Your task to perform on an android device: toggle priority inbox in the gmail app Image 0: 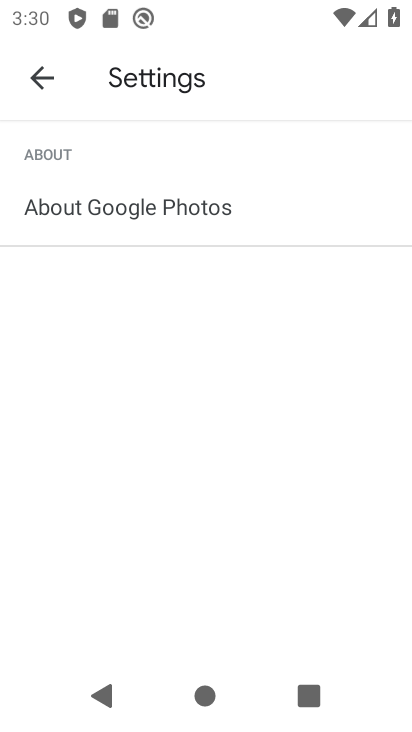
Step 0: press home button
Your task to perform on an android device: toggle priority inbox in the gmail app Image 1: 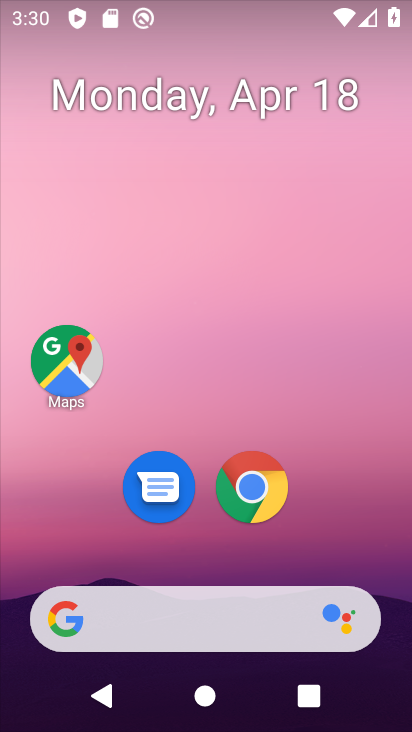
Step 1: drag from (217, 583) to (218, 64)
Your task to perform on an android device: toggle priority inbox in the gmail app Image 2: 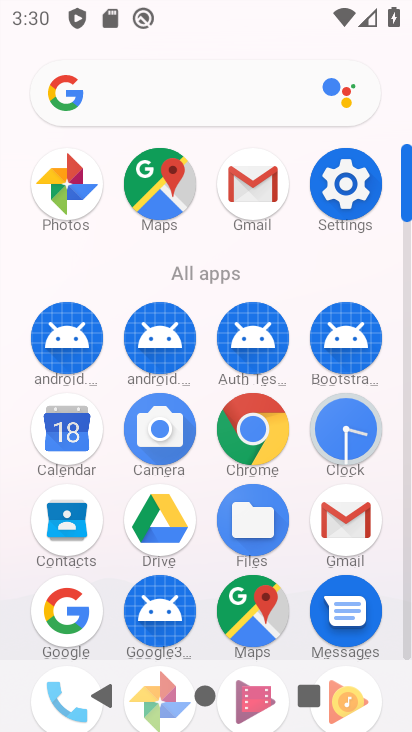
Step 2: click (328, 534)
Your task to perform on an android device: toggle priority inbox in the gmail app Image 3: 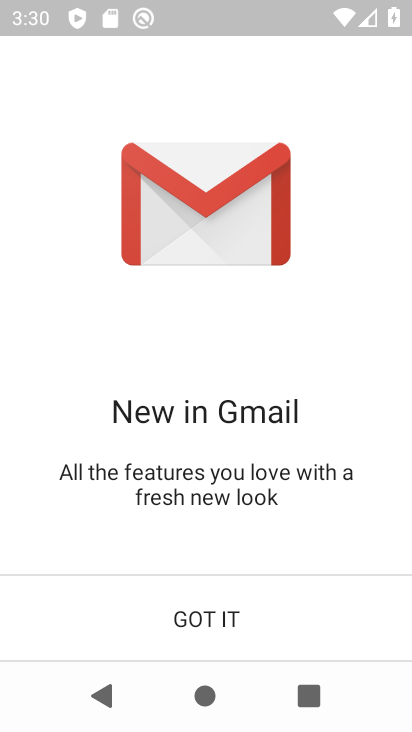
Step 3: click (169, 610)
Your task to perform on an android device: toggle priority inbox in the gmail app Image 4: 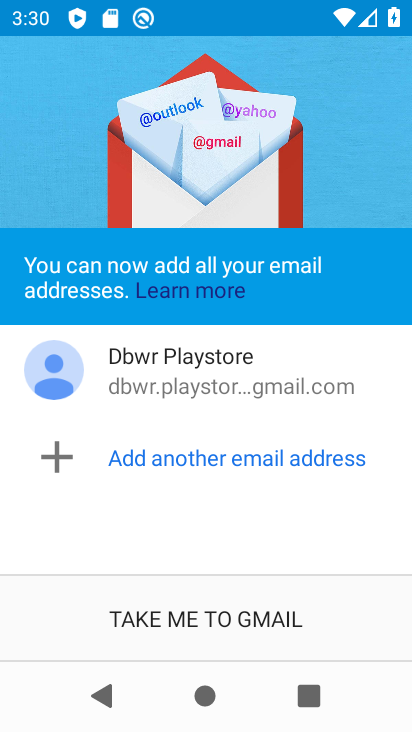
Step 4: click (159, 613)
Your task to perform on an android device: toggle priority inbox in the gmail app Image 5: 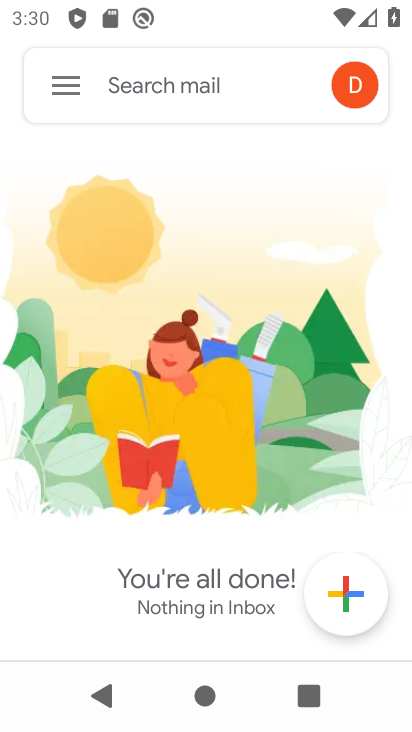
Step 5: click (61, 92)
Your task to perform on an android device: toggle priority inbox in the gmail app Image 6: 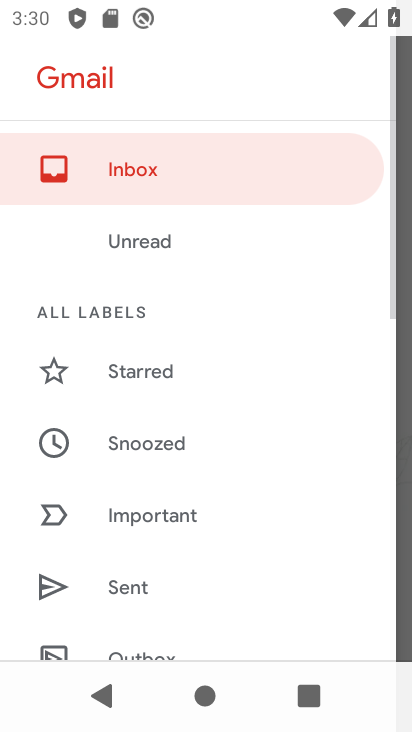
Step 6: drag from (141, 509) to (128, 144)
Your task to perform on an android device: toggle priority inbox in the gmail app Image 7: 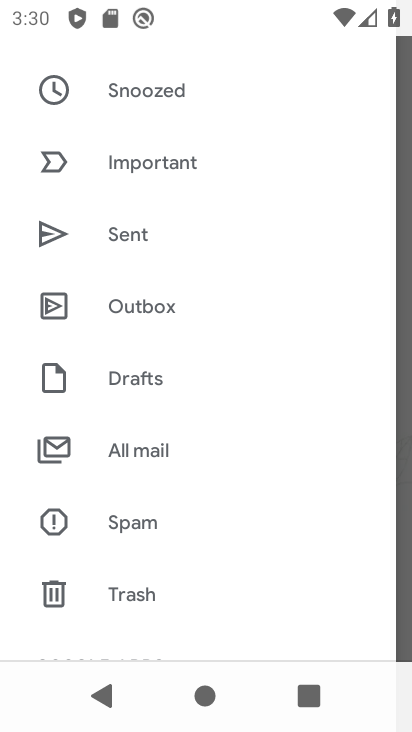
Step 7: drag from (152, 612) to (153, 246)
Your task to perform on an android device: toggle priority inbox in the gmail app Image 8: 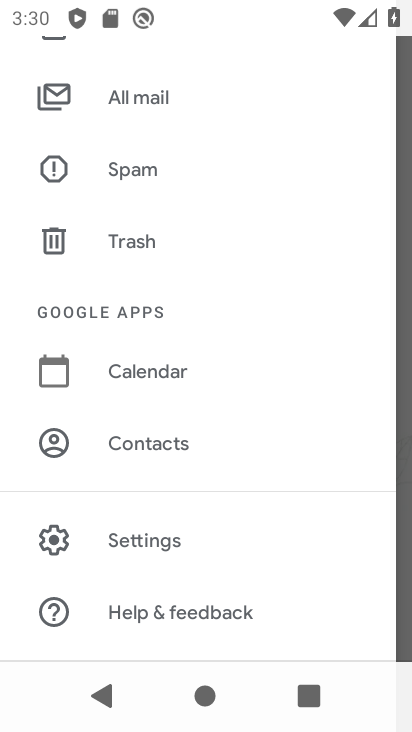
Step 8: click (146, 537)
Your task to perform on an android device: toggle priority inbox in the gmail app Image 9: 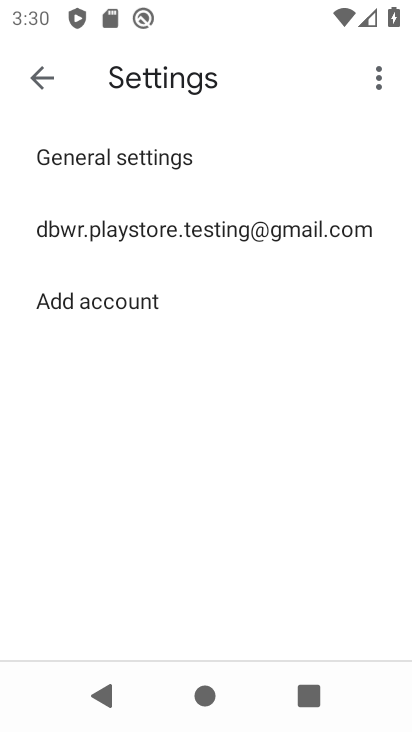
Step 9: click (155, 212)
Your task to perform on an android device: toggle priority inbox in the gmail app Image 10: 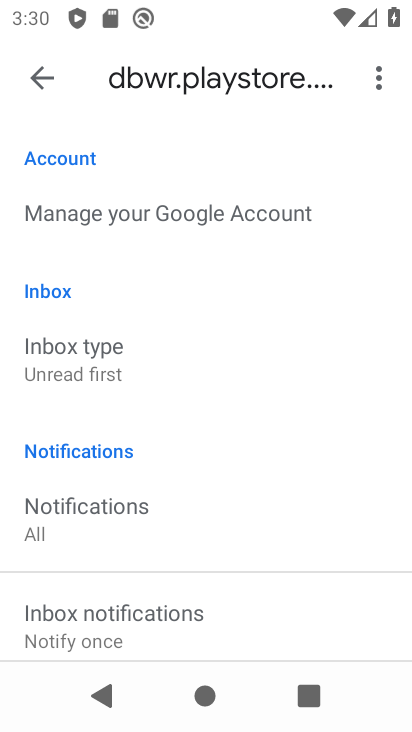
Step 10: click (69, 337)
Your task to perform on an android device: toggle priority inbox in the gmail app Image 11: 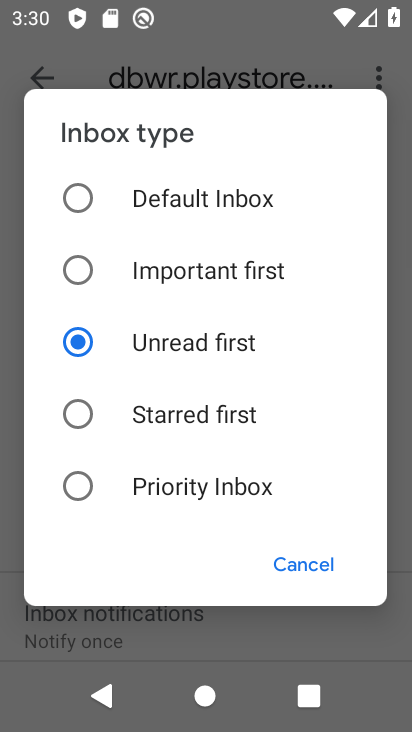
Step 11: click (131, 461)
Your task to perform on an android device: toggle priority inbox in the gmail app Image 12: 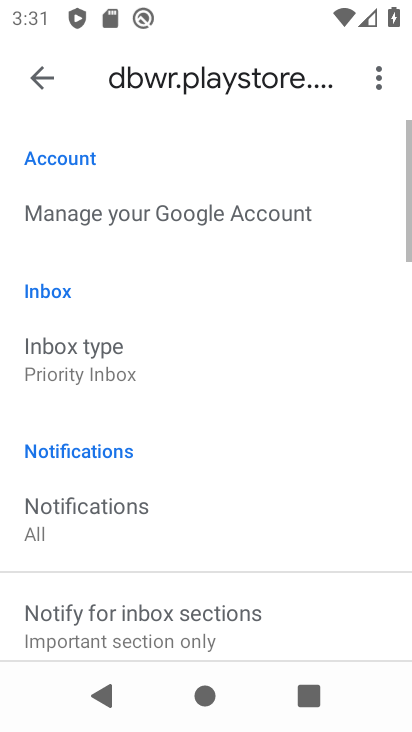
Step 12: task complete